Your task to perform on an android device: open app "Mercado Libre" Image 0: 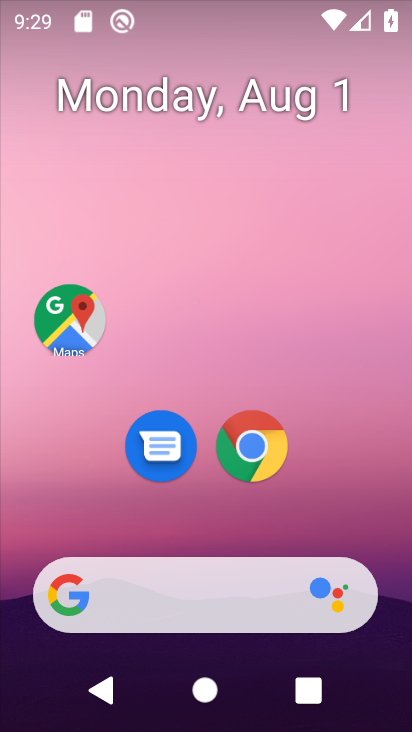
Step 0: drag from (253, 504) to (246, 50)
Your task to perform on an android device: open app "Mercado Libre" Image 1: 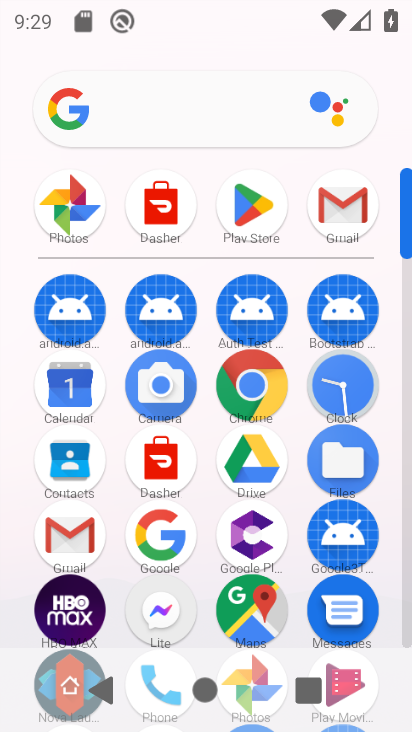
Step 1: click (245, 197)
Your task to perform on an android device: open app "Mercado Libre" Image 2: 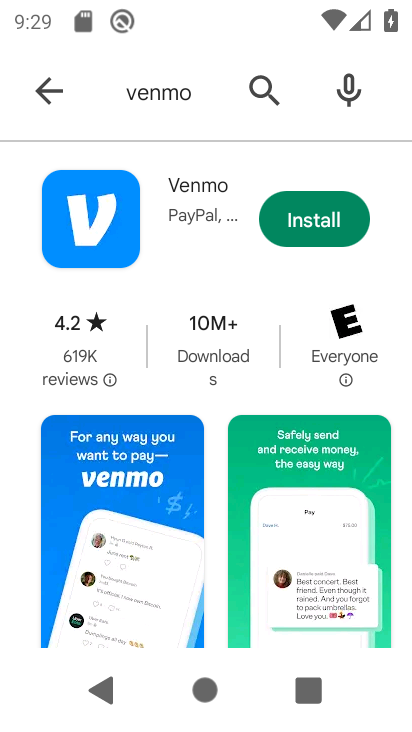
Step 2: click (264, 83)
Your task to perform on an android device: open app "Mercado Libre" Image 3: 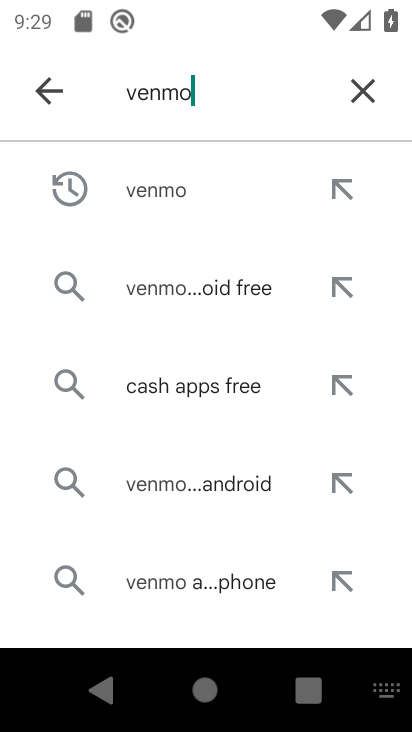
Step 3: click (360, 77)
Your task to perform on an android device: open app "Mercado Libre" Image 4: 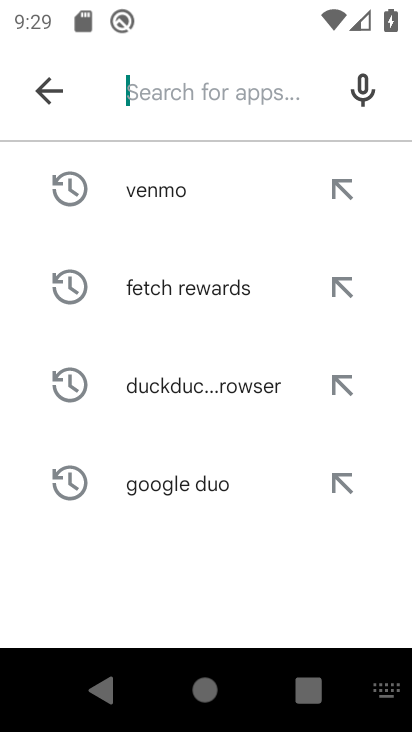
Step 4: type "Mercado Libre"
Your task to perform on an android device: open app "Mercado Libre" Image 5: 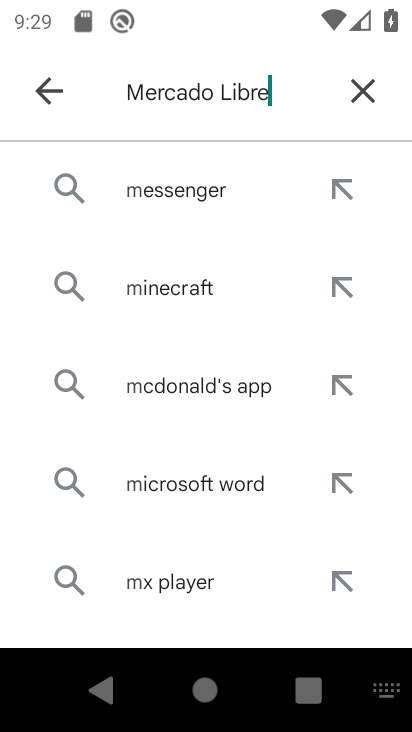
Step 5: type ""
Your task to perform on an android device: open app "Mercado Libre" Image 6: 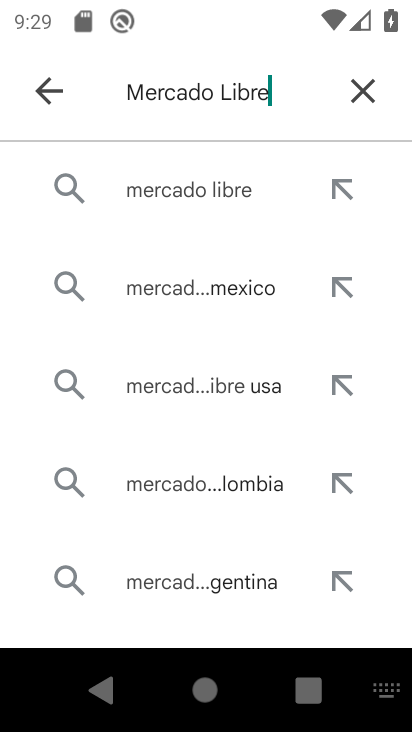
Step 6: click (170, 192)
Your task to perform on an android device: open app "Mercado Libre" Image 7: 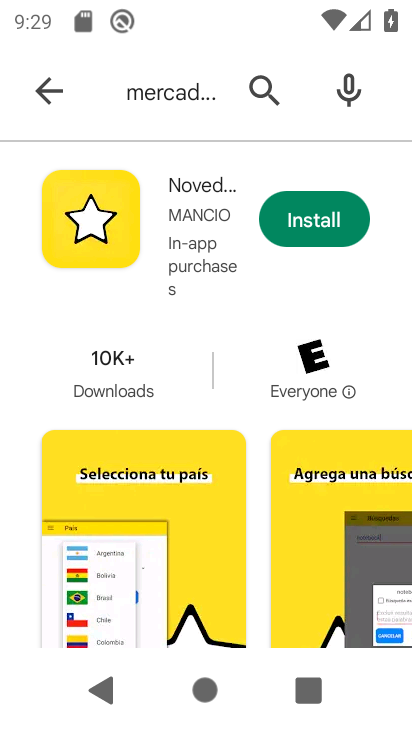
Step 7: task complete